Your task to perform on an android device: Clear the cart on ebay.com. Image 0: 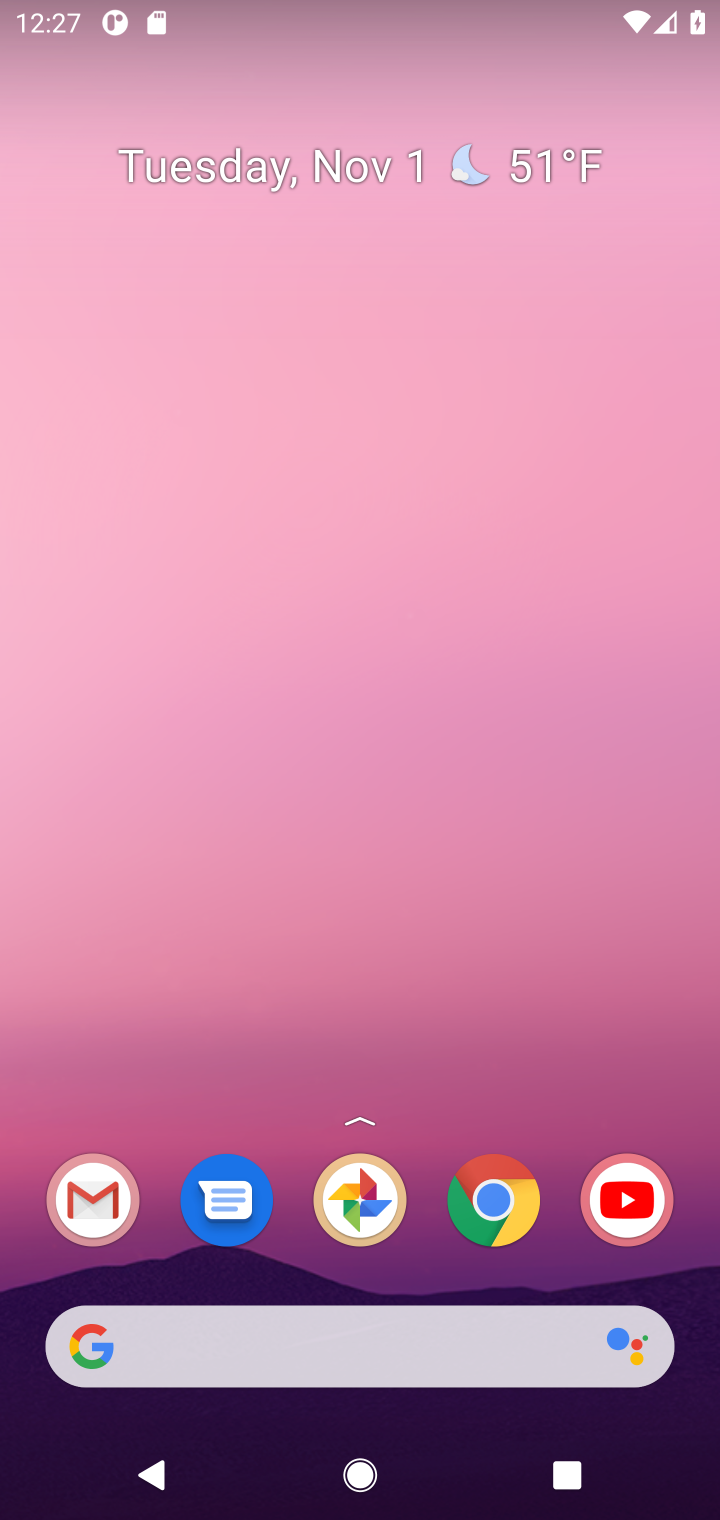
Step 0: click (504, 1217)
Your task to perform on an android device: Clear the cart on ebay.com. Image 1: 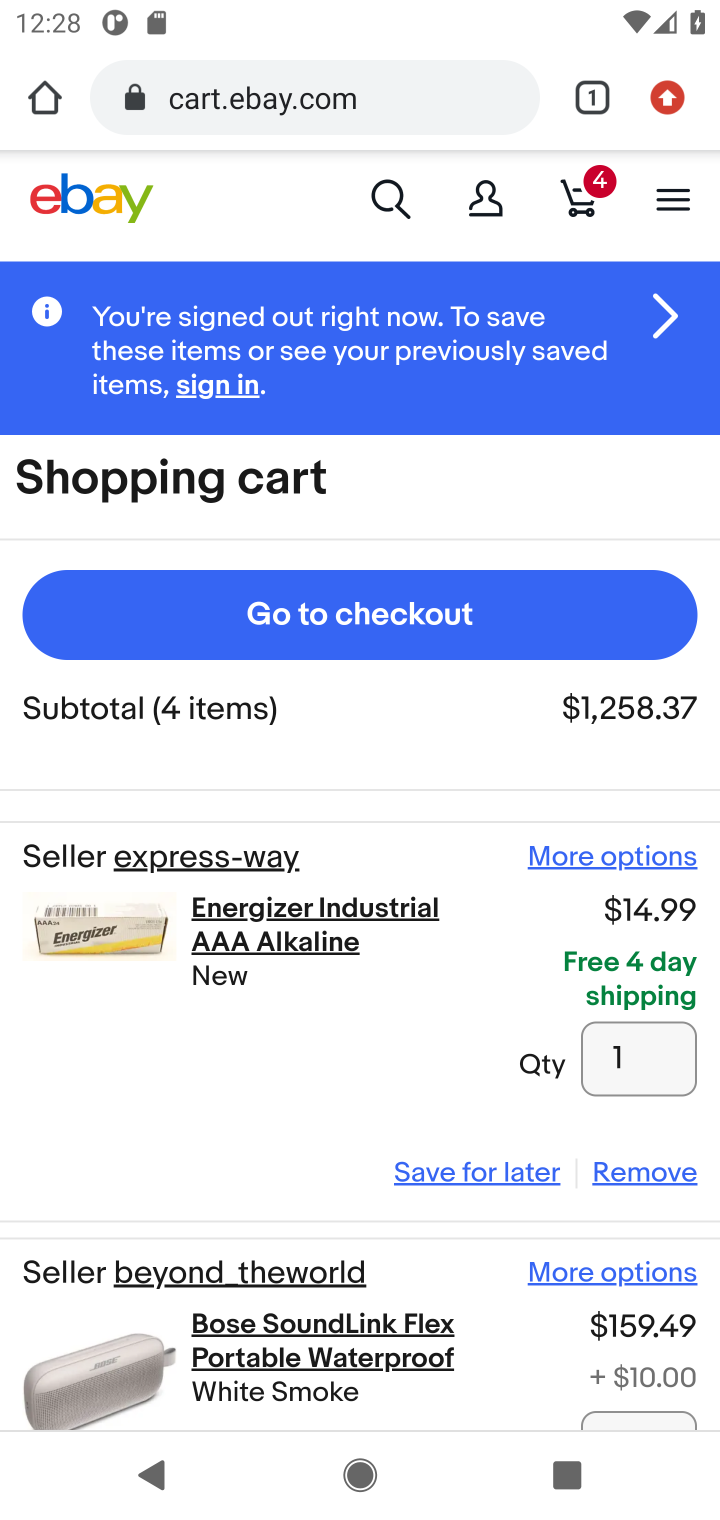
Step 1: click (657, 1175)
Your task to perform on an android device: Clear the cart on ebay.com. Image 2: 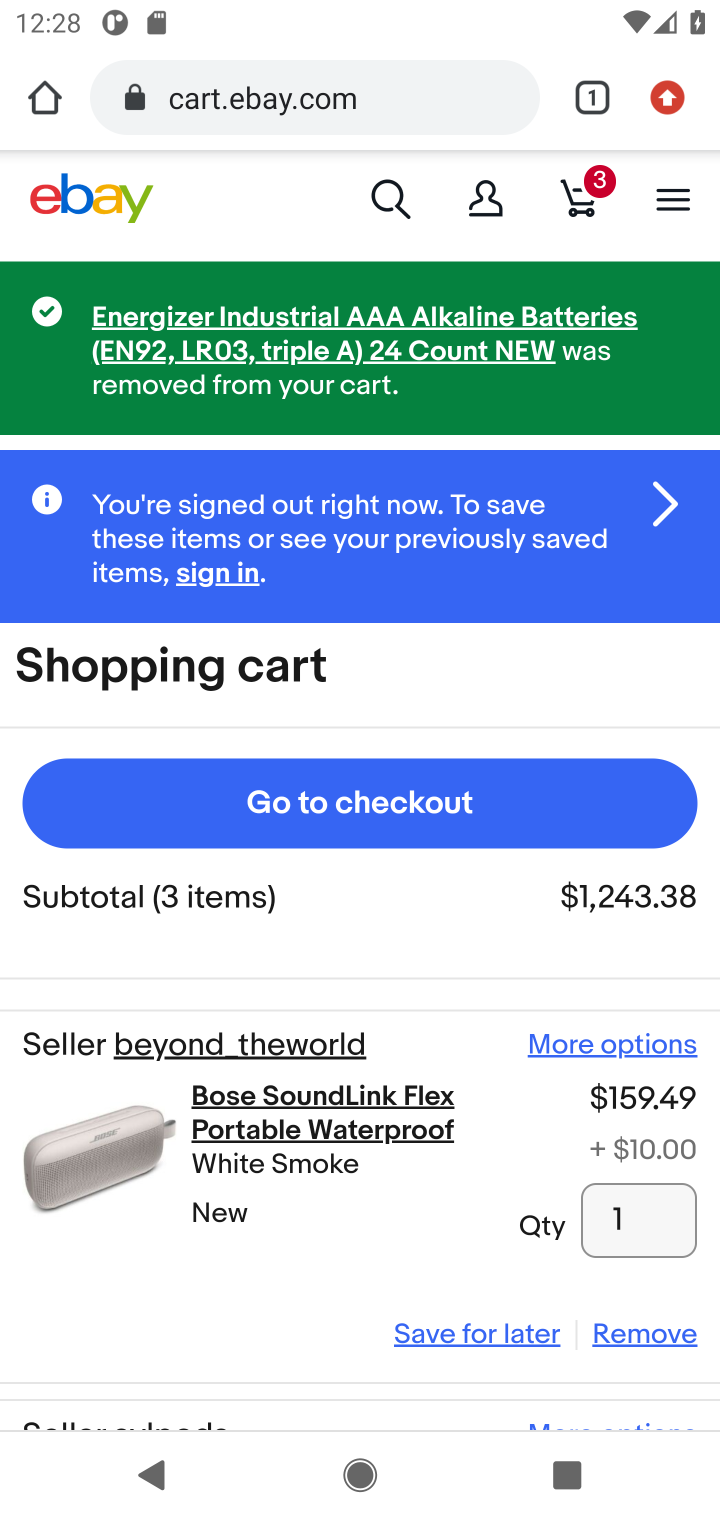
Step 2: click (670, 1322)
Your task to perform on an android device: Clear the cart on ebay.com. Image 3: 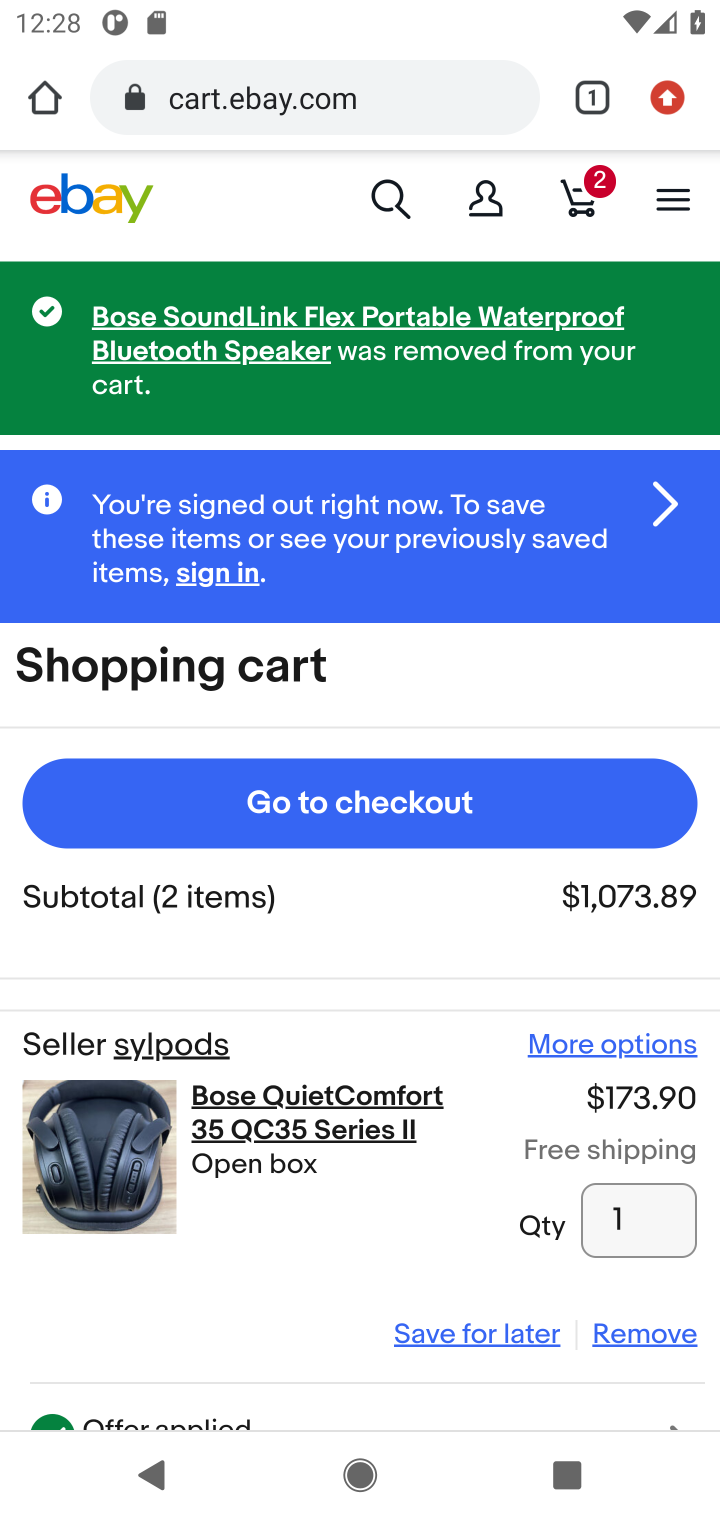
Step 3: click (637, 1344)
Your task to perform on an android device: Clear the cart on ebay.com. Image 4: 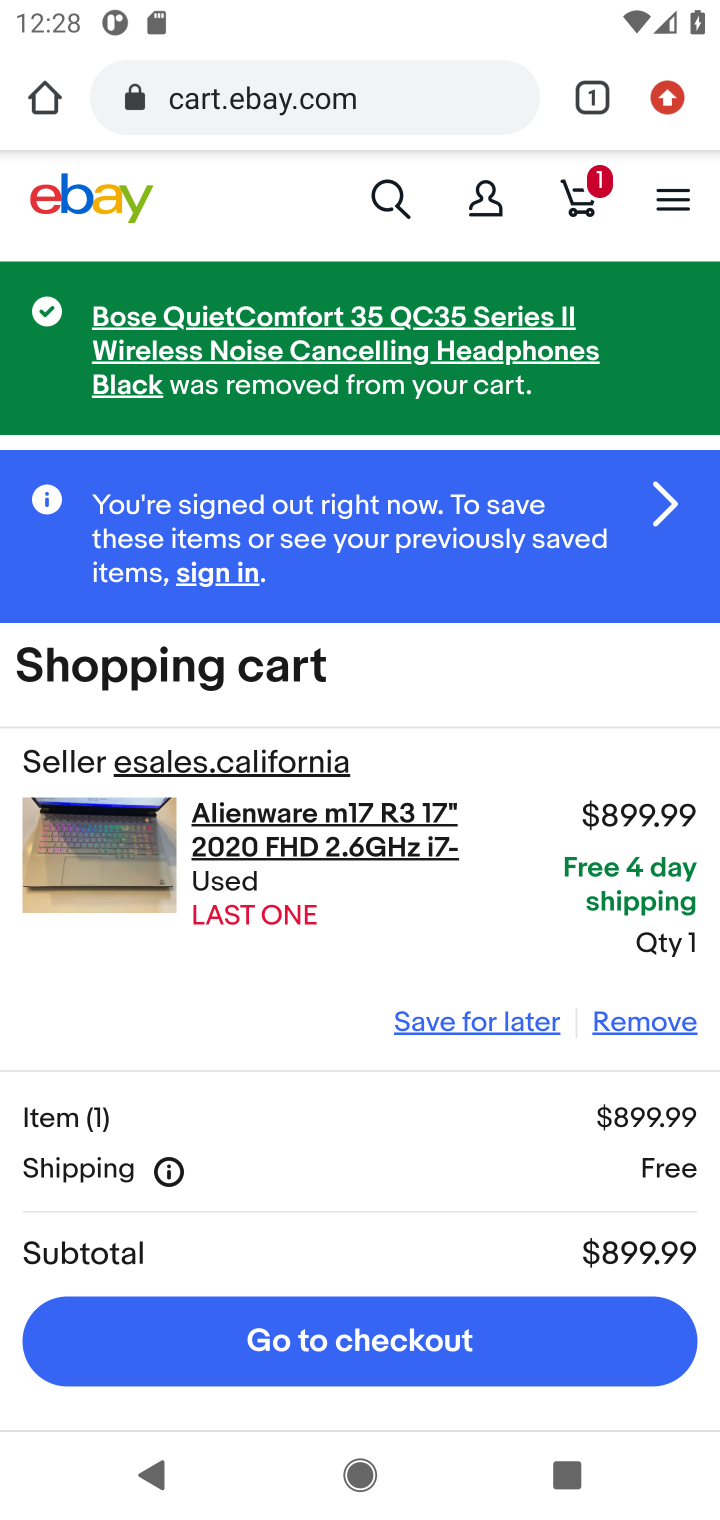
Step 4: click (647, 1022)
Your task to perform on an android device: Clear the cart on ebay.com. Image 5: 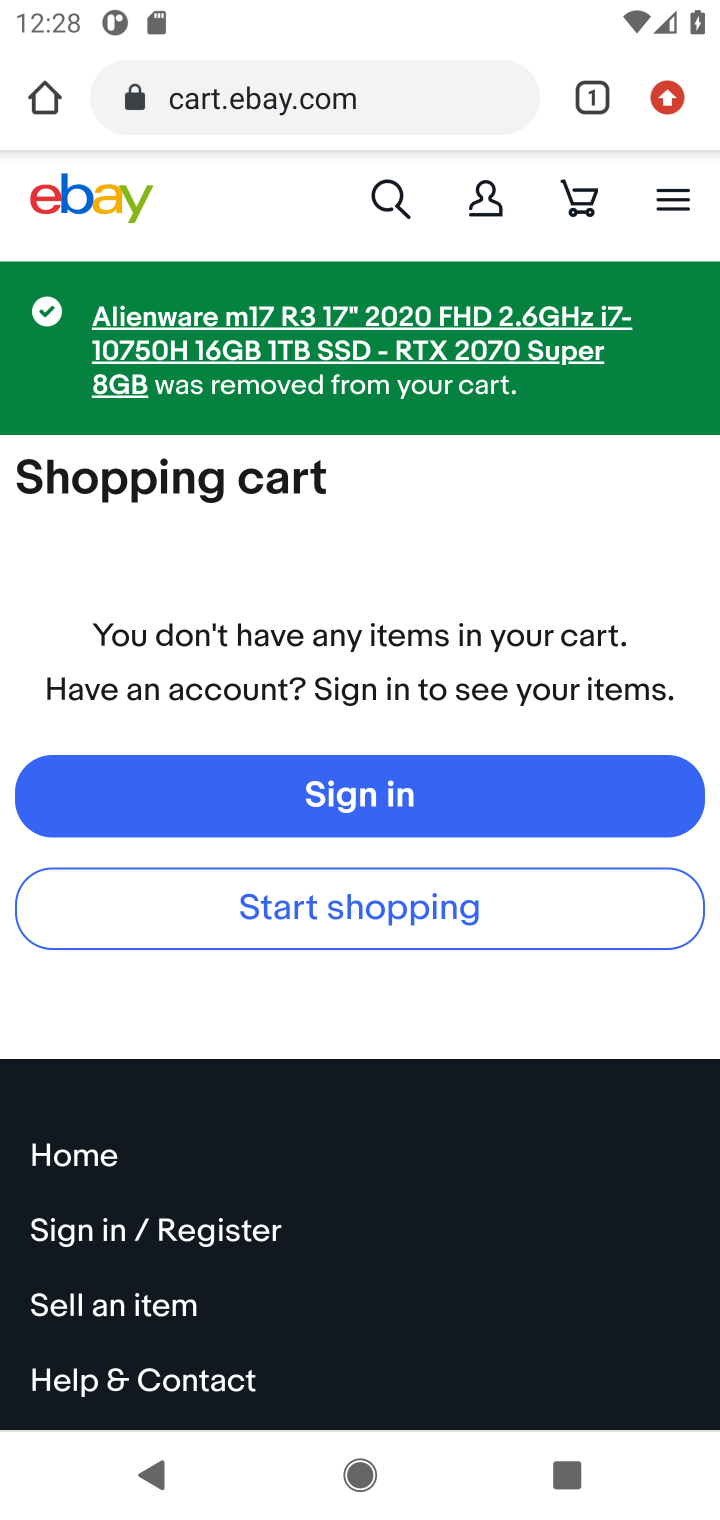
Step 5: task complete